Your task to perform on an android device: toggle location history Image 0: 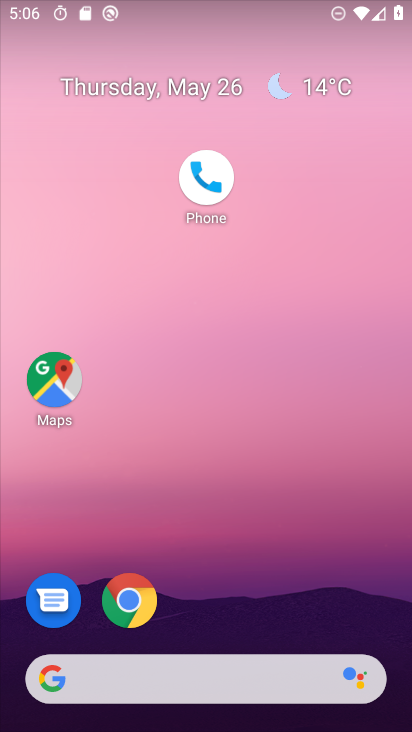
Step 0: drag from (190, 627) to (229, 343)
Your task to perform on an android device: toggle location history Image 1: 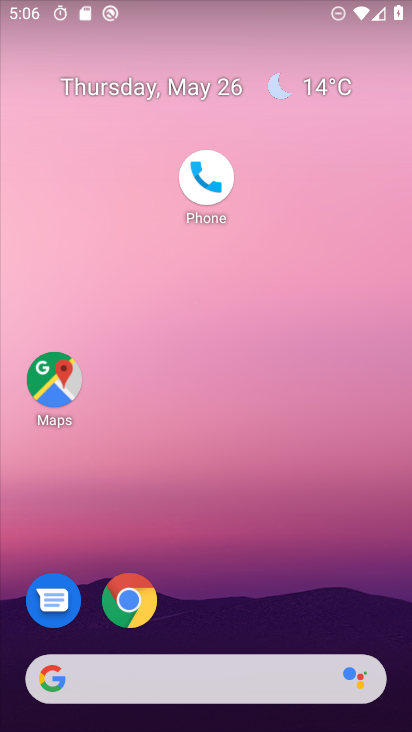
Step 1: drag from (219, 638) to (272, 268)
Your task to perform on an android device: toggle location history Image 2: 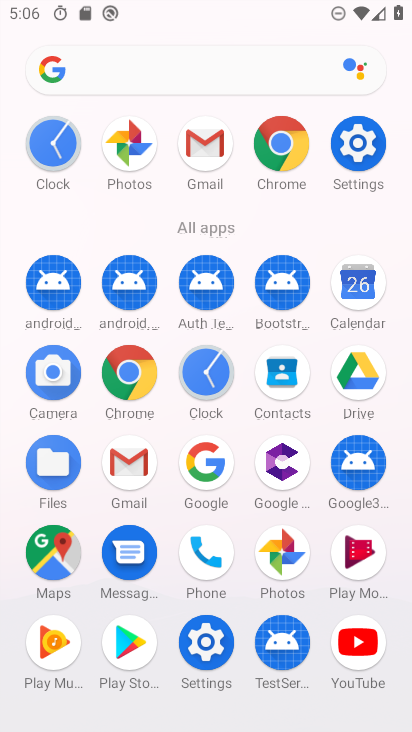
Step 2: click (374, 113)
Your task to perform on an android device: toggle location history Image 3: 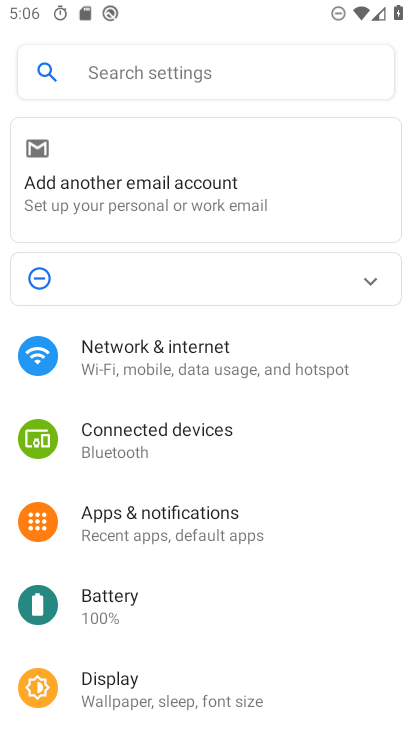
Step 3: drag from (132, 662) to (192, 203)
Your task to perform on an android device: toggle location history Image 4: 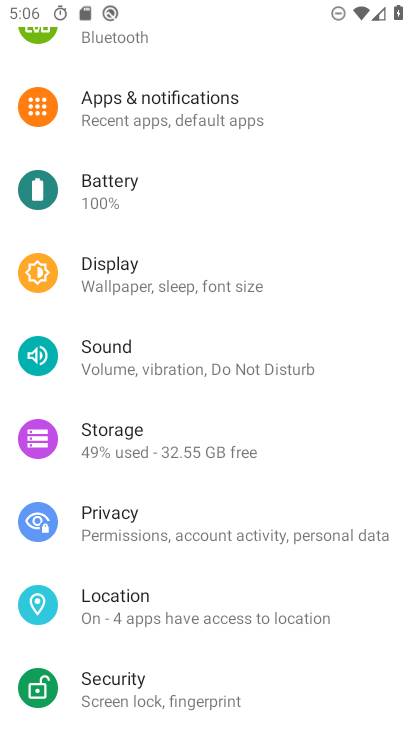
Step 4: drag from (173, 642) to (244, 257)
Your task to perform on an android device: toggle location history Image 5: 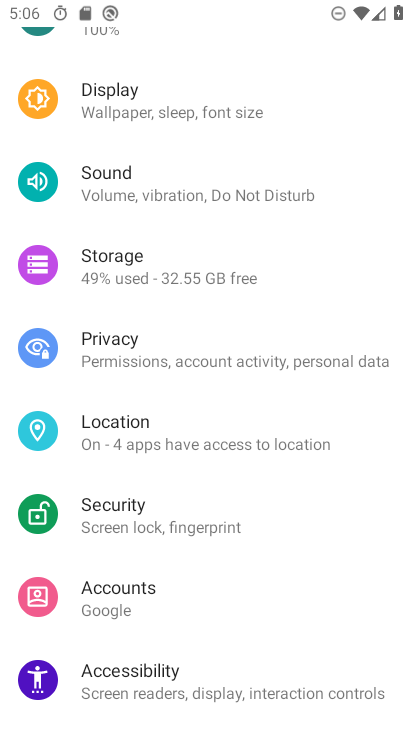
Step 5: click (165, 427)
Your task to perform on an android device: toggle location history Image 6: 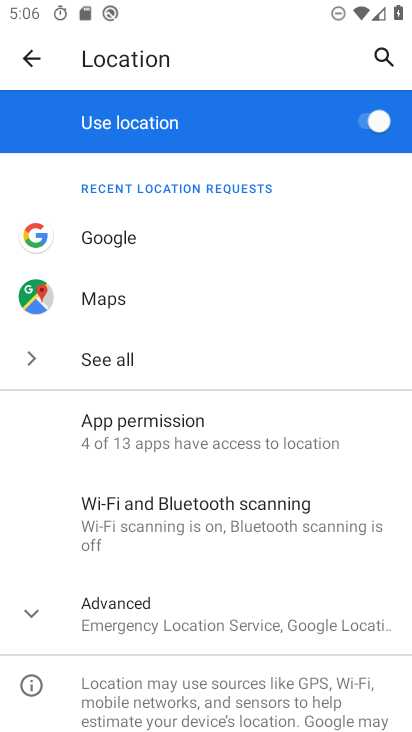
Step 6: click (135, 590)
Your task to perform on an android device: toggle location history Image 7: 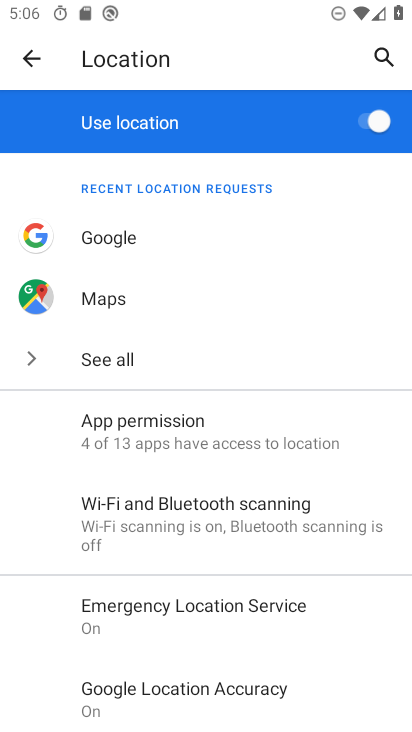
Step 7: drag from (194, 675) to (269, 189)
Your task to perform on an android device: toggle location history Image 8: 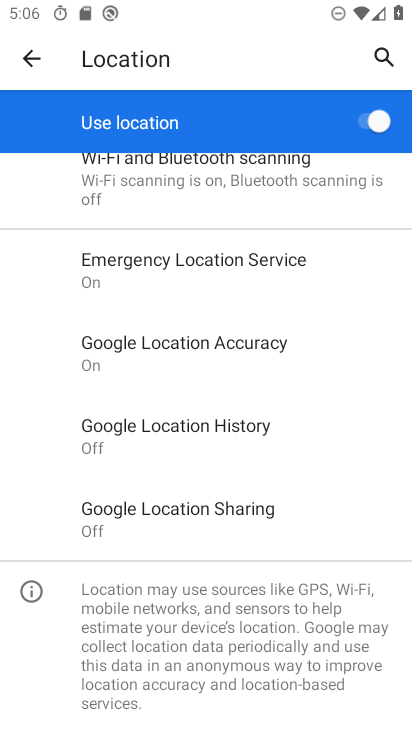
Step 8: click (214, 417)
Your task to perform on an android device: toggle location history Image 9: 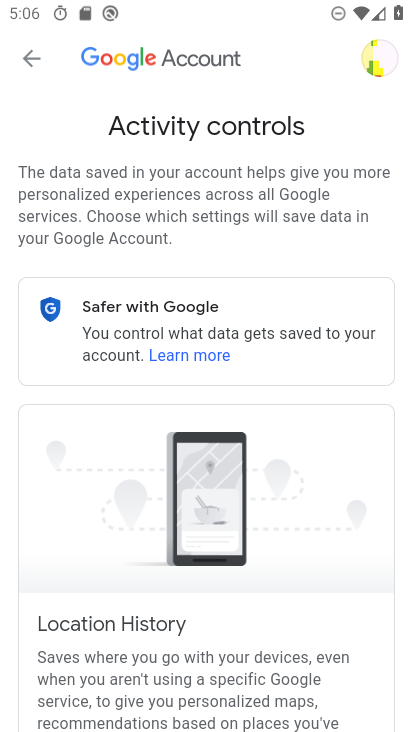
Step 9: task complete